Your task to perform on an android device: Play the last video I watched on Youtube Image 0: 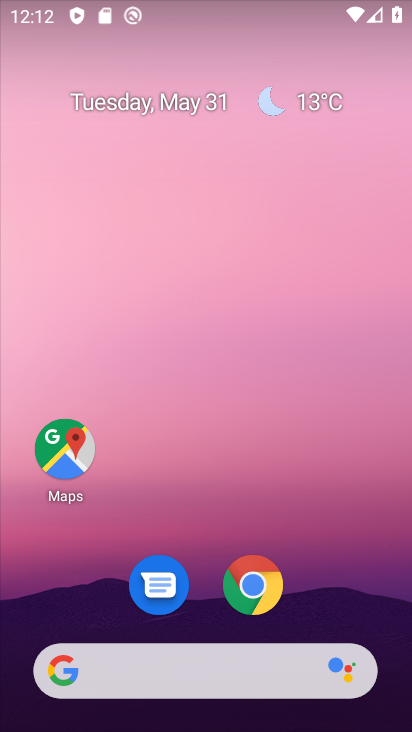
Step 0: drag from (251, 495) to (280, 11)
Your task to perform on an android device: Play the last video I watched on Youtube Image 1: 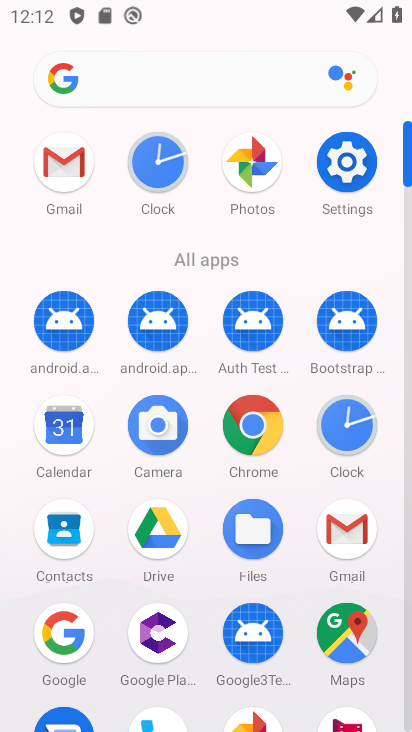
Step 1: drag from (290, 469) to (319, 77)
Your task to perform on an android device: Play the last video I watched on Youtube Image 2: 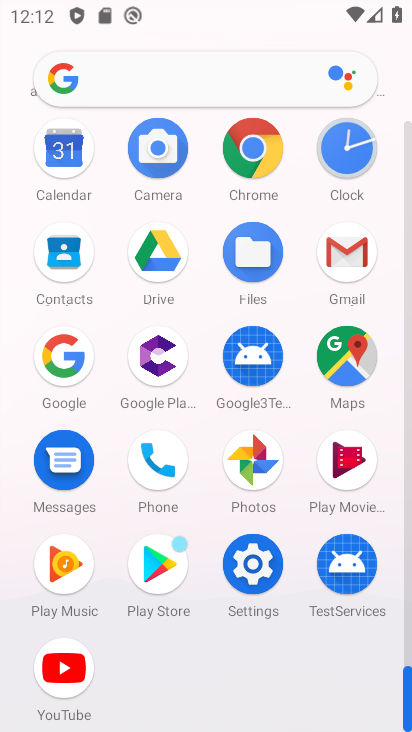
Step 2: click (79, 664)
Your task to perform on an android device: Play the last video I watched on Youtube Image 3: 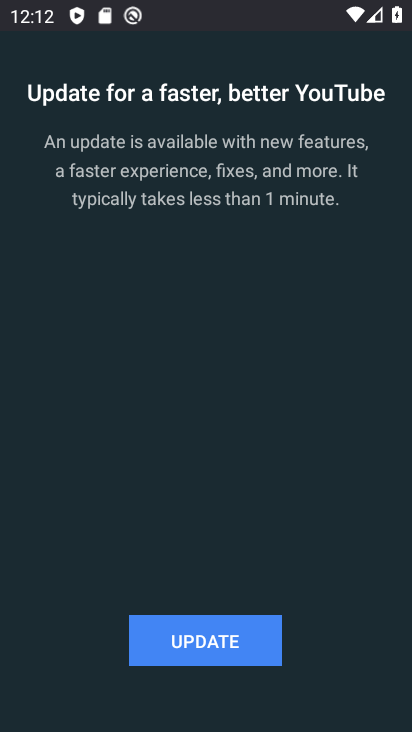
Step 3: click (225, 644)
Your task to perform on an android device: Play the last video I watched on Youtube Image 4: 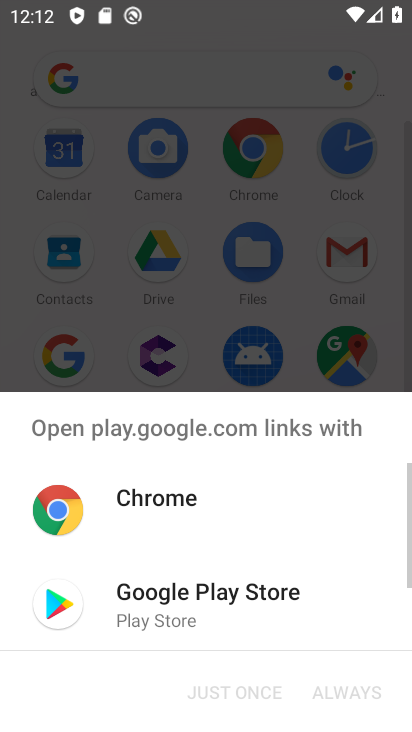
Step 4: click (198, 598)
Your task to perform on an android device: Play the last video I watched on Youtube Image 5: 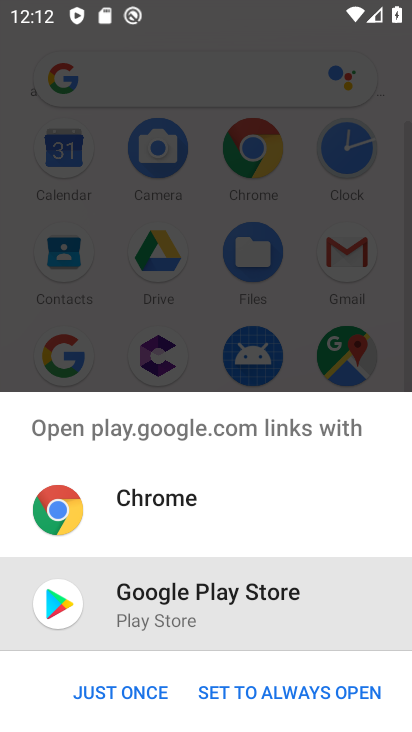
Step 5: click (142, 690)
Your task to perform on an android device: Play the last video I watched on Youtube Image 6: 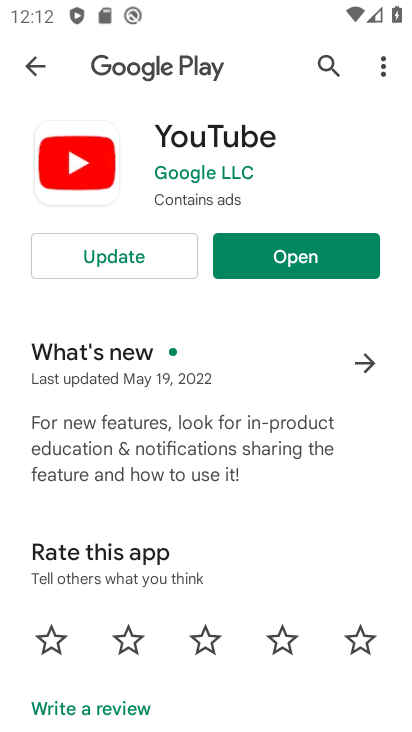
Step 6: click (178, 261)
Your task to perform on an android device: Play the last video I watched on Youtube Image 7: 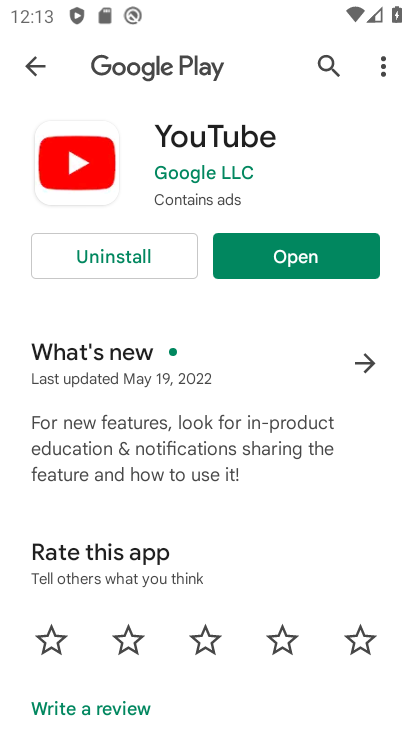
Step 7: click (310, 256)
Your task to perform on an android device: Play the last video I watched on Youtube Image 8: 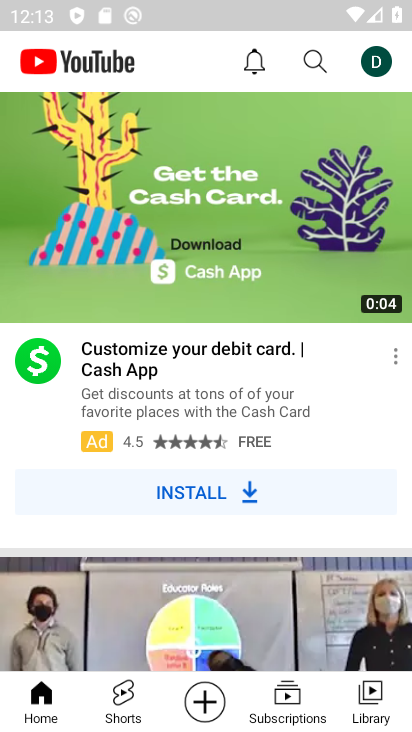
Step 8: click (370, 696)
Your task to perform on an android device: Play the last video I watched on Youtube Image 9: 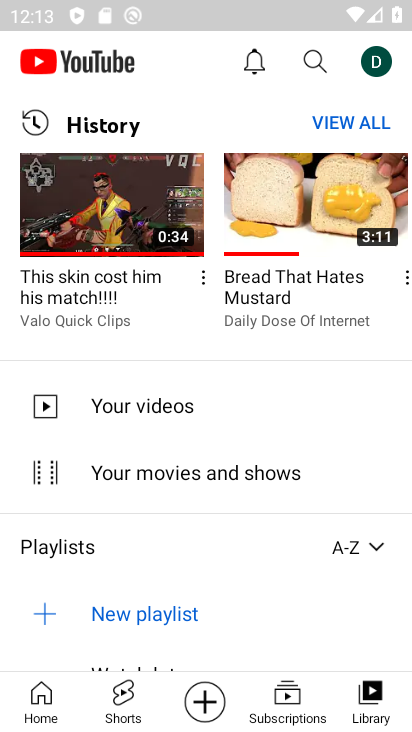
Step 9: click (37, 121)
Your task to perform on an android device: Play the last video I watched on Youtube Image 10: 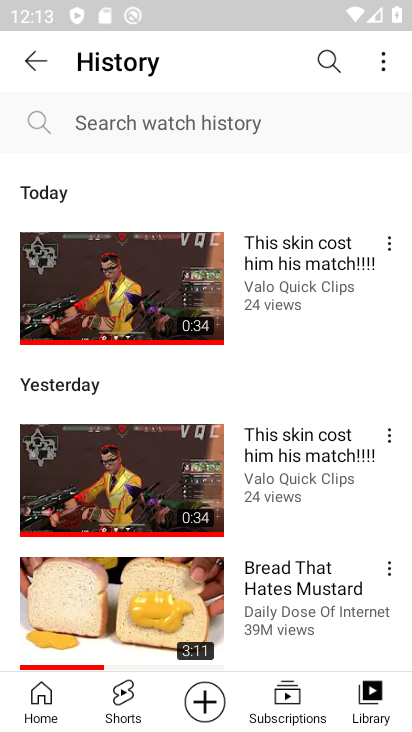
Step 10: click (155, 264)
Your task to perform on an android device: Play the last video I watched on Youtube Image 11: 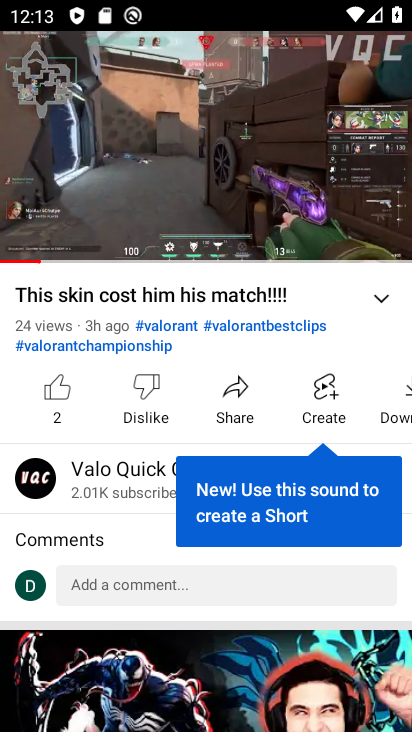
Step 11: task complete